Your task to perform on an android device: turn off airplane mode Image 0: 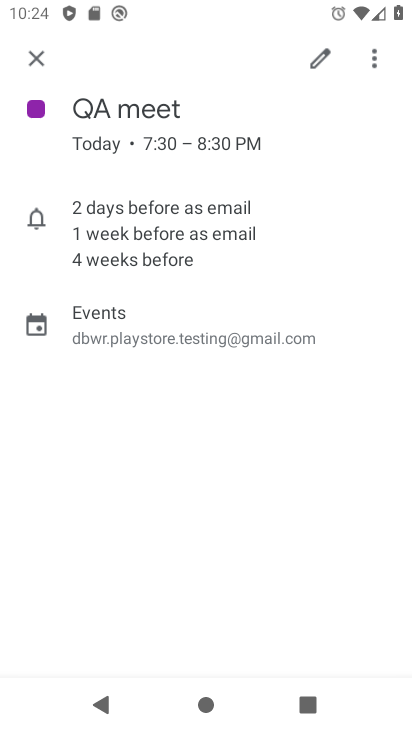
Step 0: press home button
Your task to perform on an android device: turn off airplane mode Image 1: 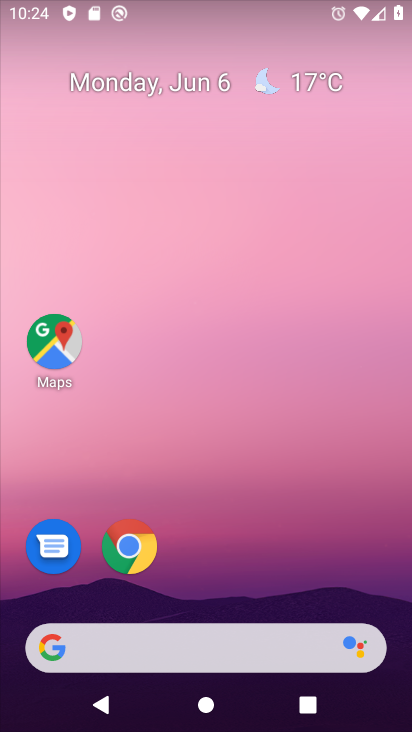
Step 1: drag from (240, 591) to (310, 138)
Your task to perform on an android device: turn off airplane mode Image 2: 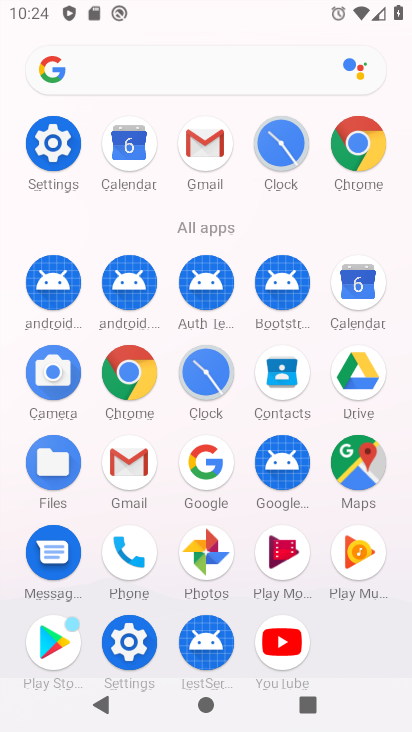
Step 2: click (129, 651)
Your task to perform on an android device: turn off airplane mode Image 3: 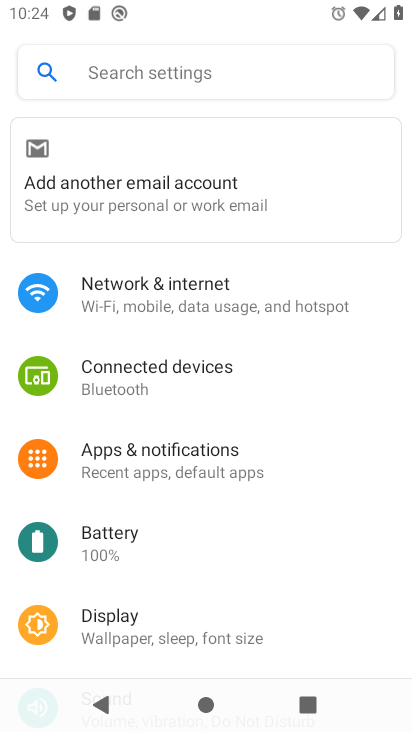
Step 3: click (199, 321)
Your task to perform on an android device: turn off airplane mode Image 4: 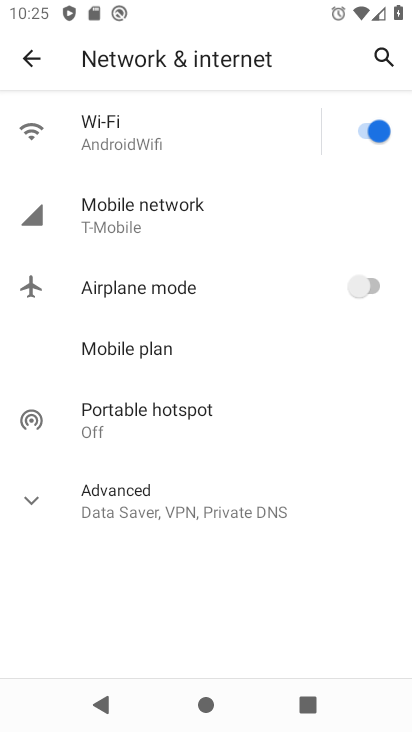
Step 4: task complete